Your task to perform on an android device: Toggle the flashlight Image 0: 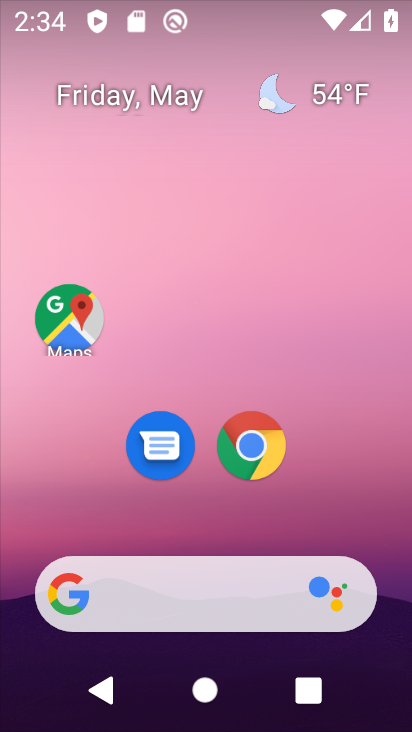
Step 0: drag from (358, 503) to (362, 191)
Your task to perform on an android device: Toggle the flashlight Image 1: 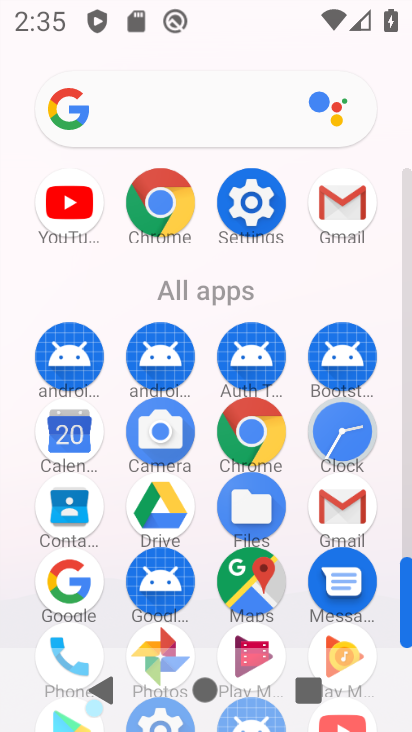
Step 1: click (243, 193)
Your task to perform on an android device: Toggle the flashlight Image 2: 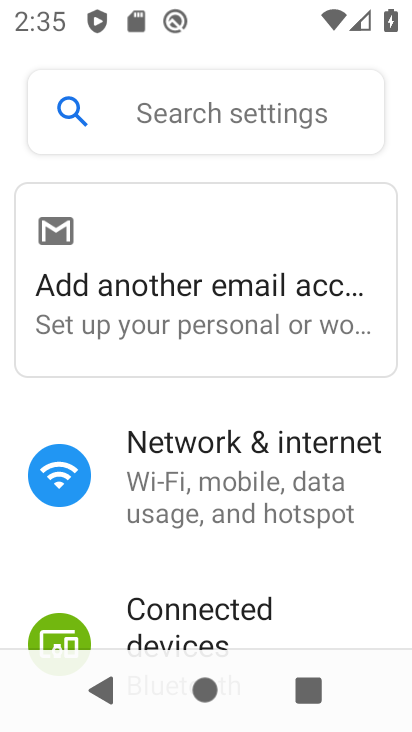
Step 2: click (201, 119)
Your task to perform on an android device: Toggle the flashlight Image 3: 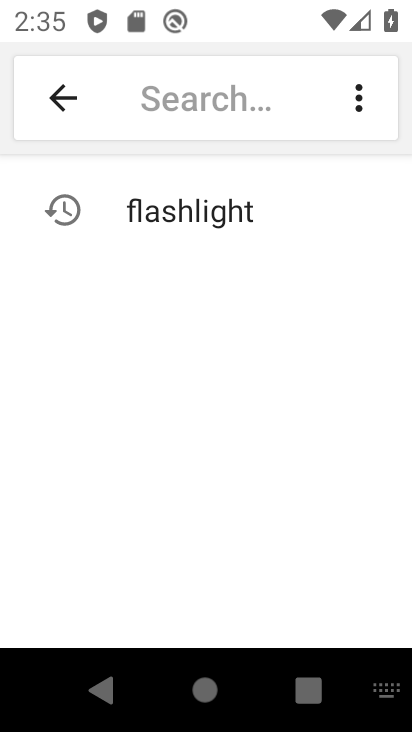
Step 3: click (172, 218)
Your task to perform on an android device: Toggle the flashlight Image 4: 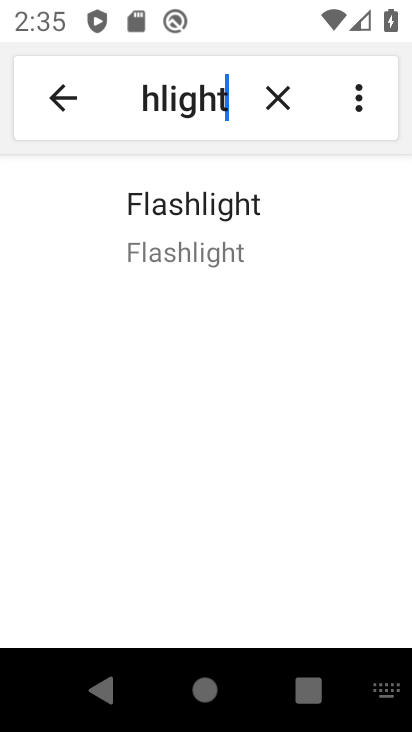
Step 4: task complete